Your task to perform on an android device: open device folders in google photos Image 0: 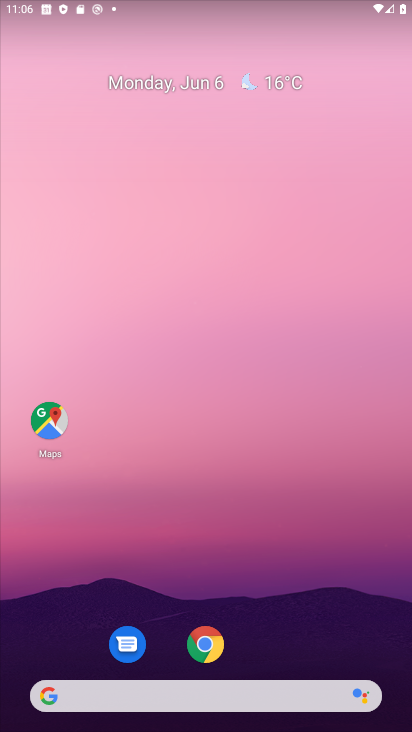
Step 0: drag from (285, 643) to (219, 82)
Your task to perform on an android device: open device folders in google photos Image 1: 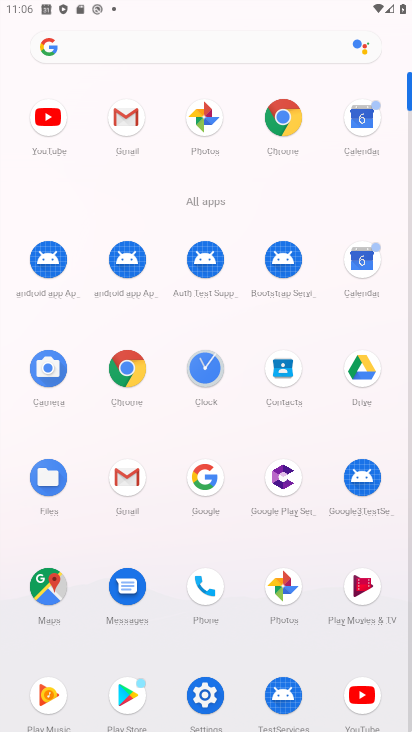
Step 1: click (201, 125)
Your task to perform on an android device: open device folders in google photos Image 2: 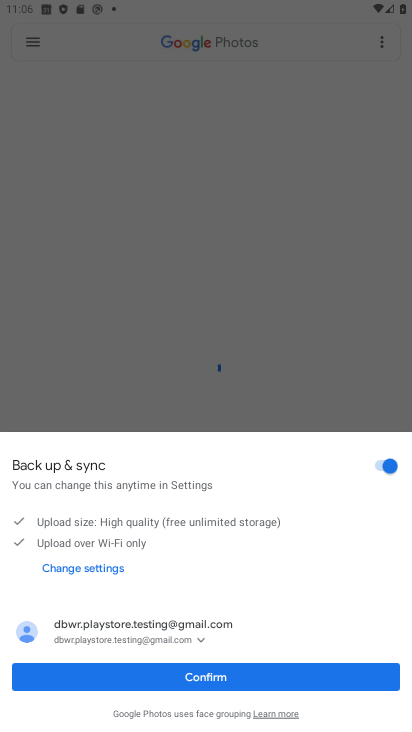
Step 2: click (215, 676)
Your task to perform on an android device: open device folders in google photos Image 3: 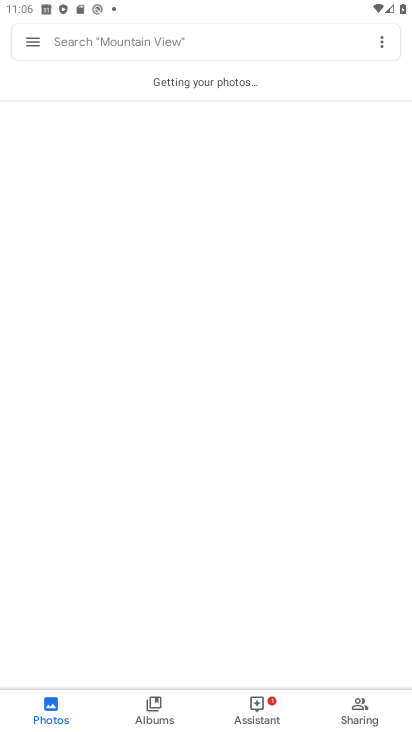
Step 3: click (26, 44)
Your task to perform on an android device: open device folders in google photos Image 4: 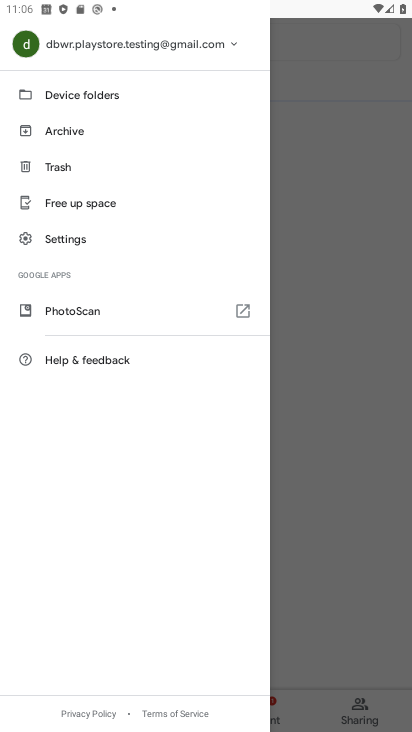
Step 4: click (56, 95)
Your task to perform on an android device: open device folders in google photos Image 5: 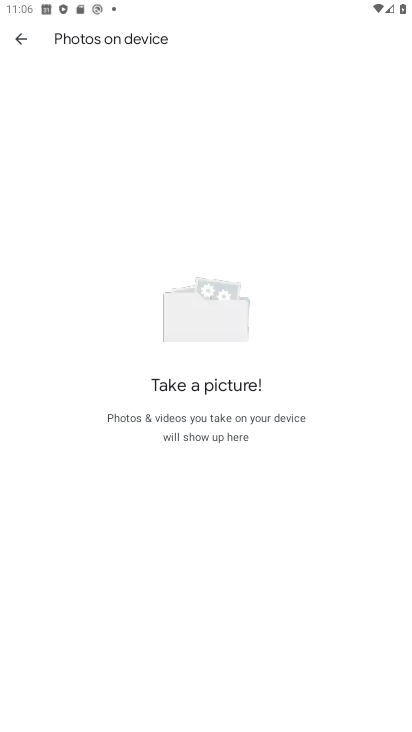
Step 5: task complete